Your task to perform on an android device: Add "razer nari" to the cart on amazon, then select checkout. Image 0: 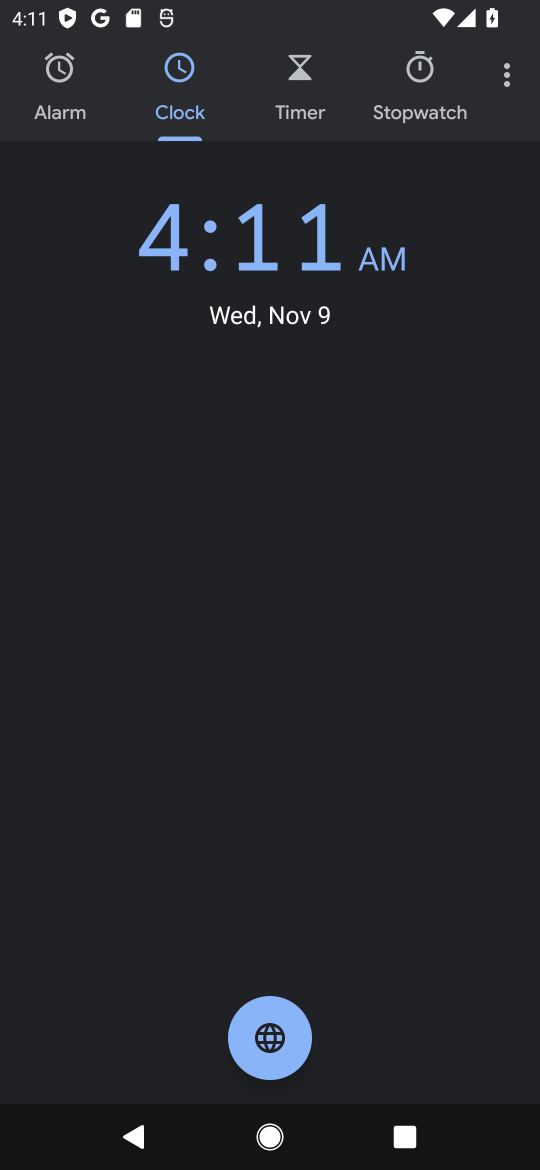
Step 0: press home button
Your task to perform on an android device: Add "razer nari" to the cart on amazon, then select checkout. Image 1: 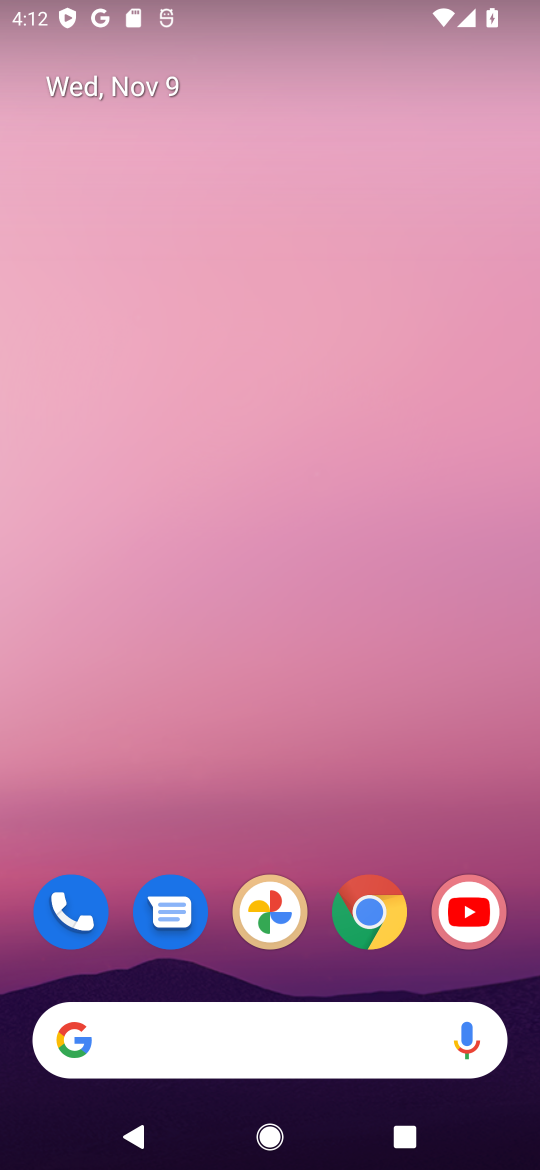
Step 1: click (371, 916)
Your task to perform on an android device: Add "razer nari" to the cart on amazon, then select checkout. Image 2: 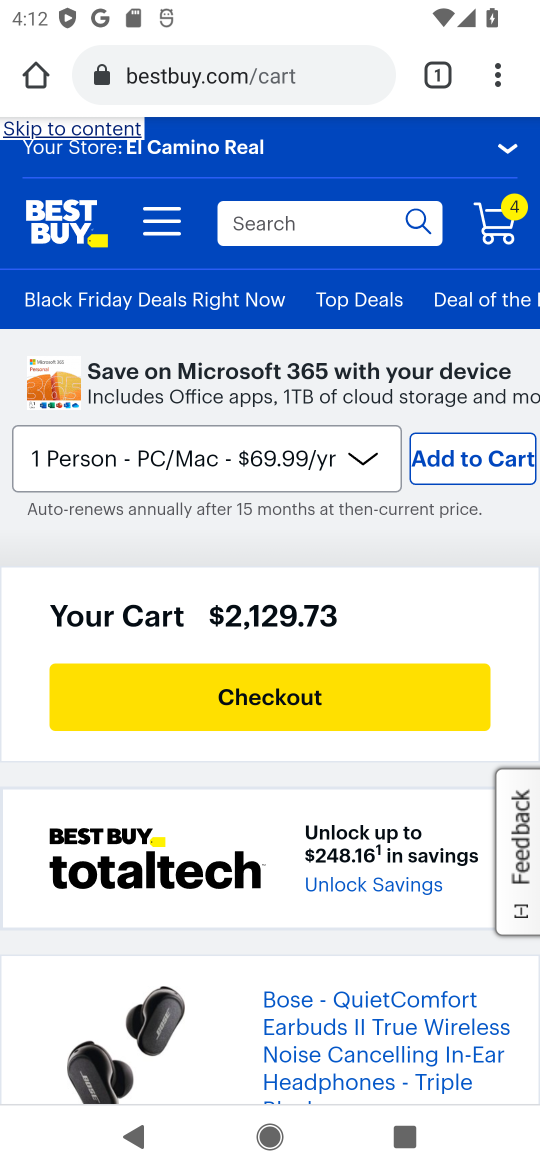
Step 2: click (328, 78)
Your task to perform on an android device: Add "razer nari" to the cart on amazon, then select checkout. Image 3: 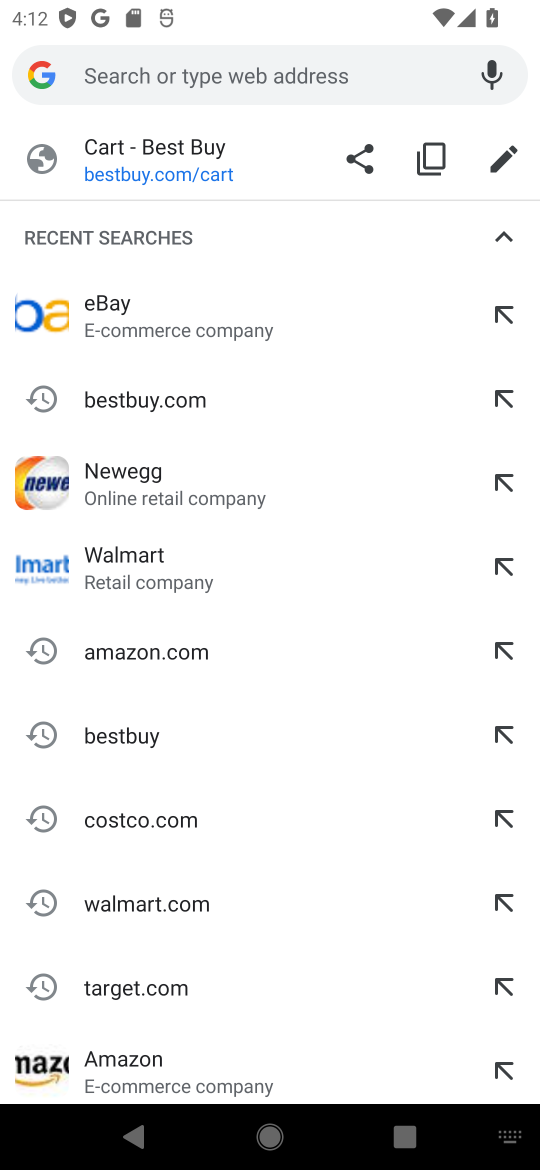
Step 3: type "amazon"
Your task to perform on an android device: Add "razer nari" to the cart on amazon, then select checkout. Image 4: 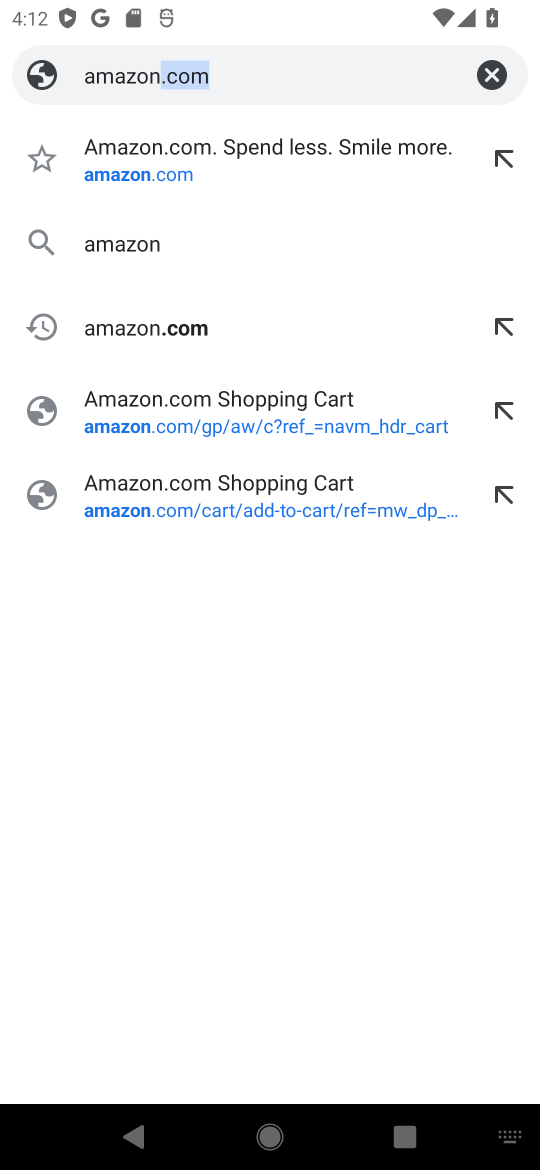
Step 4: click (159, 168)
Your task to perform on an android device: Add "razer nari" to the cart on amazon, then select checkout. Image 5: 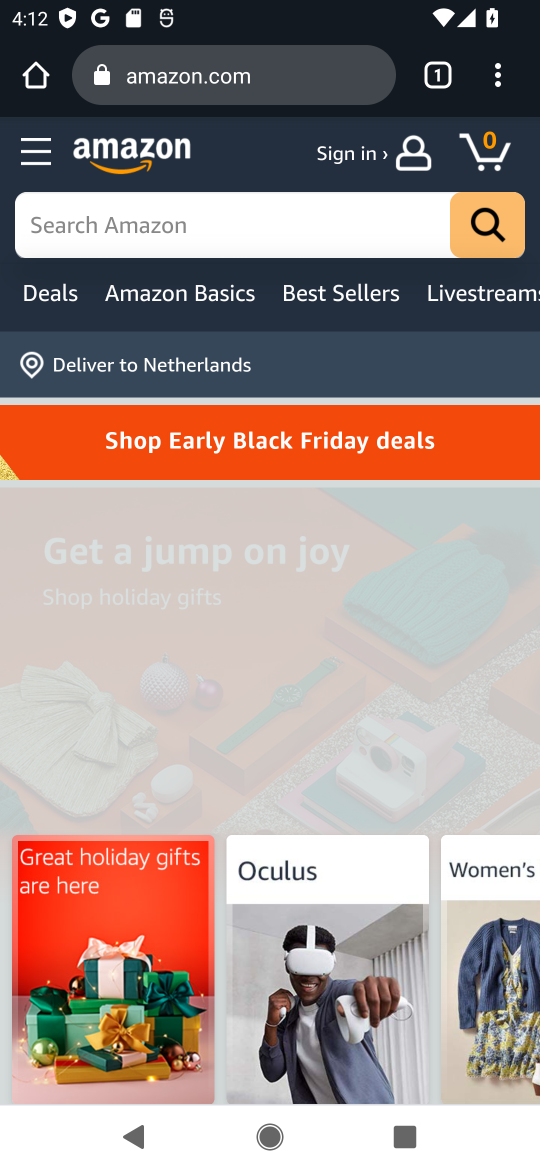
Step 5: click (177, 228)
Your task to perform on an android device: Add "razer nari" to the cart on amazon, then select checkout. Image 6: 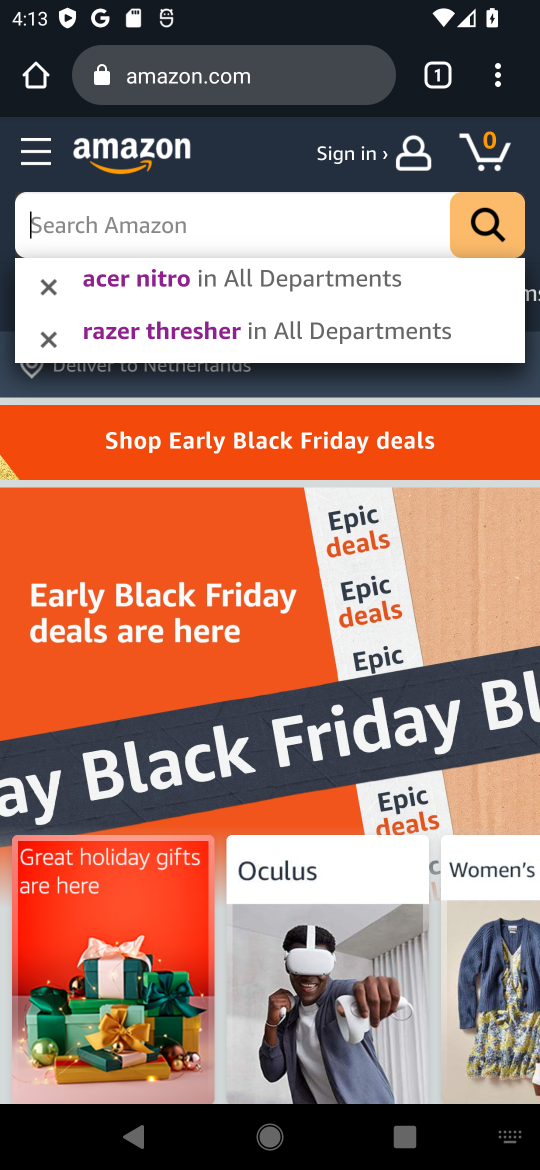
Step 6: type "razer nari"
Your task to perform on an android device: Add "razer nari" to the cart on amazon, then select checkout. Image 7: 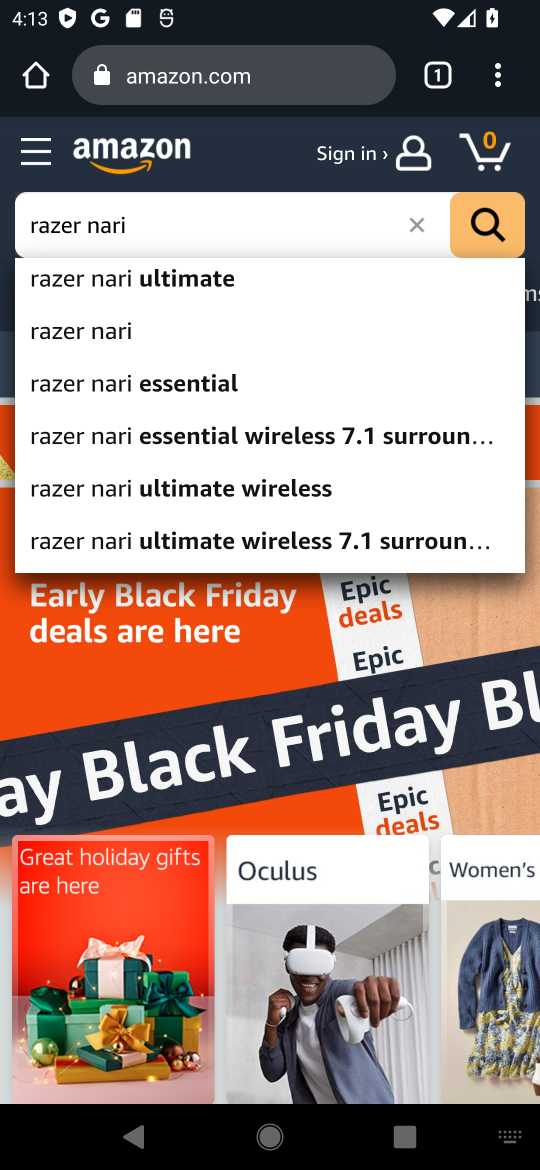
Step 7: click (64, 335)
Your task to perform on an android device: Add "razer nari" to the cart on amazon, then select checkout. Image 8: 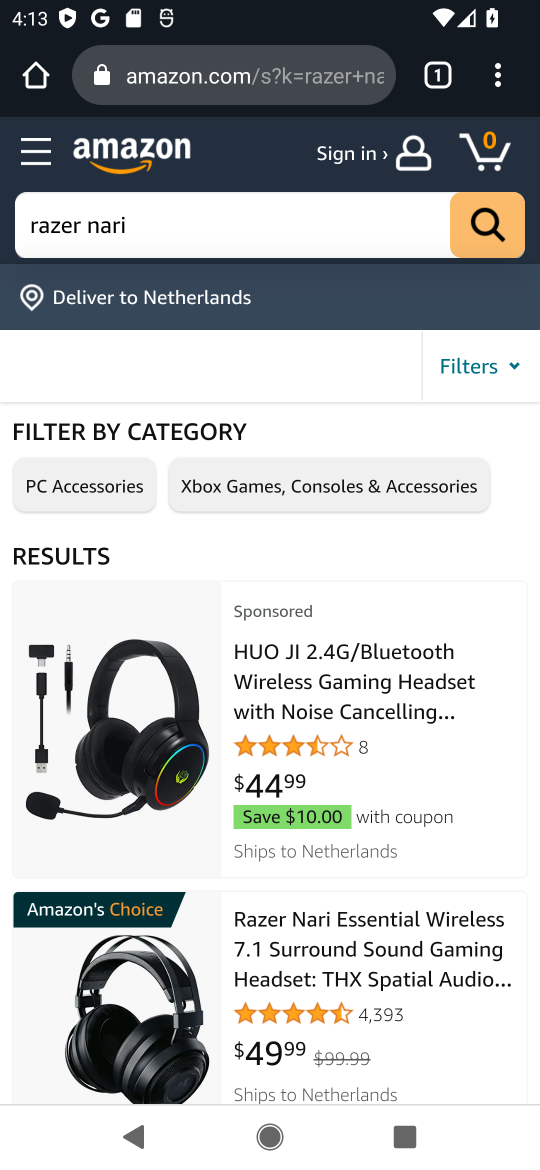
Step 8: drag from (408, 948) to (418, 613)
Your task to perform on an android device: Add "razer nari" to the cart on amazon, then select checkout. Image 9: 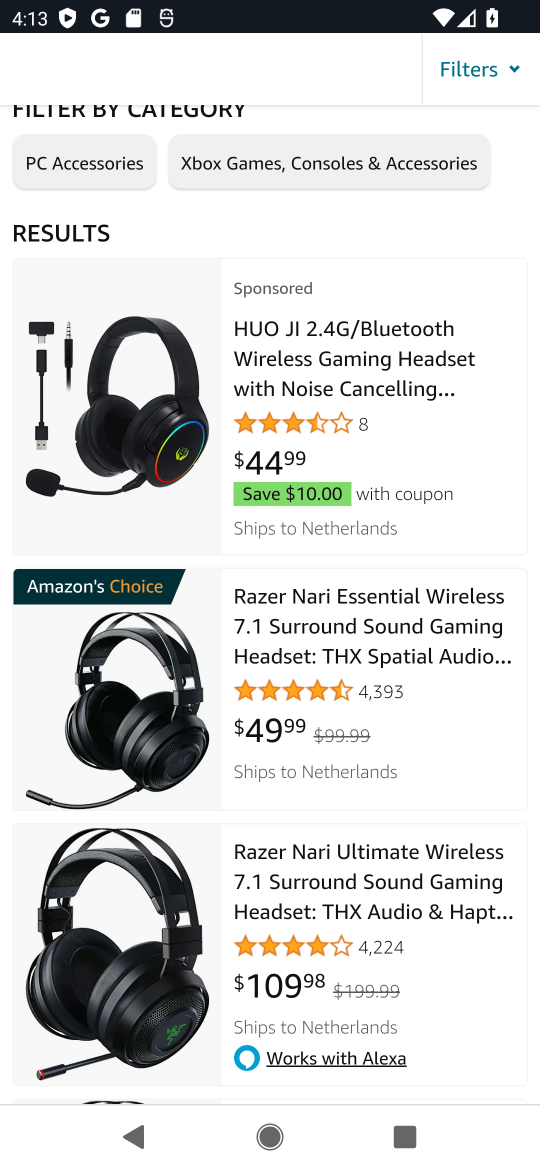
Step 9: click (341, 626)
Your task to perform on an android device: Add "razer nari" to the cart on amazon, then select checkout. Image 10: 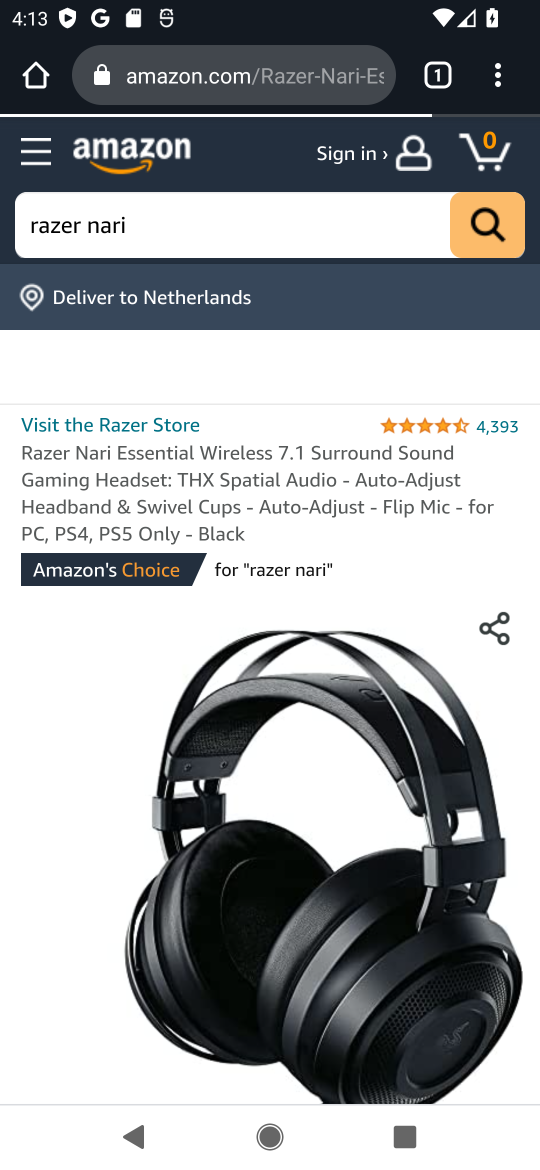
Step 10: drag from (103, 829) to (95, 434)
Your task to perform on an android device: Add "razer nari" to the cart on amazon, then select checkout. Image 11: 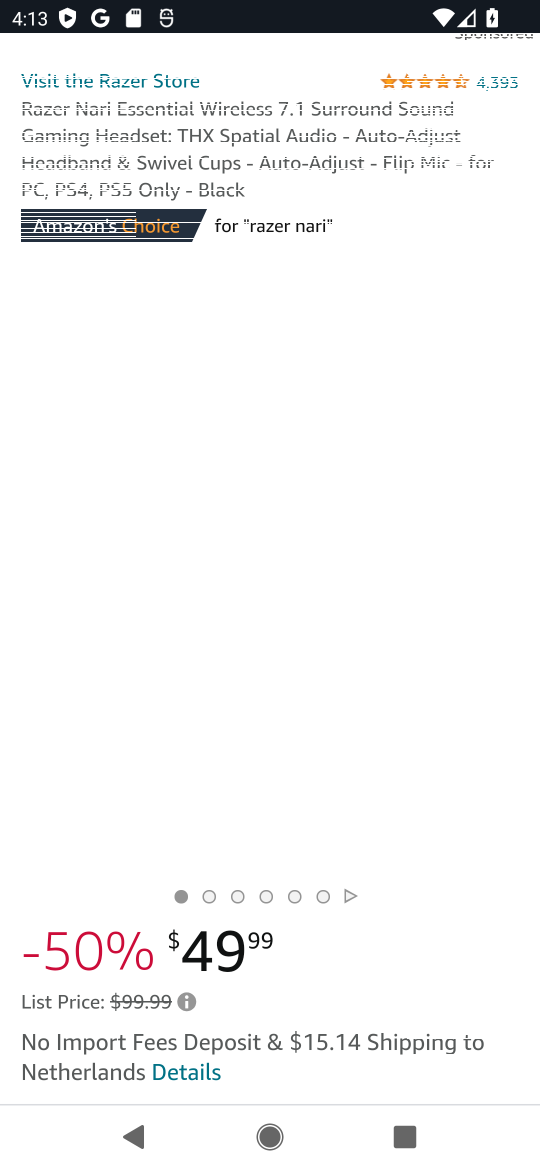
Step 11: drag from (120, 681) to (107, 323)
Your task to perform on an android device: Add "razer nari" to the cart on amazon, then select checkout. Image 12: 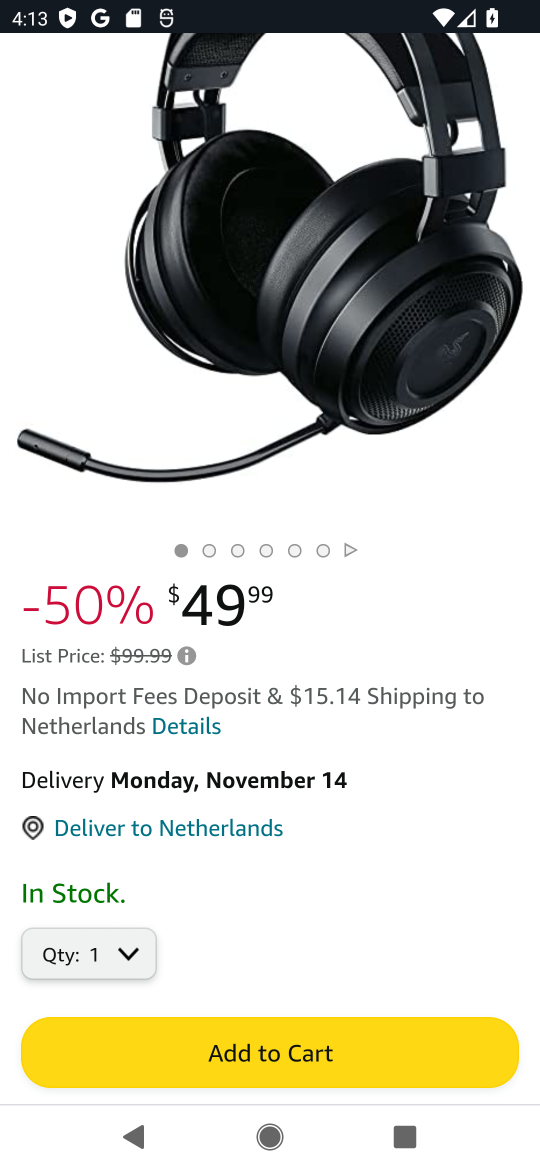
Step 12: click (228, 1053)
Your task to perform on an android device: Add "razer nari" to the cart on amazon, then select checkout. Image 13: 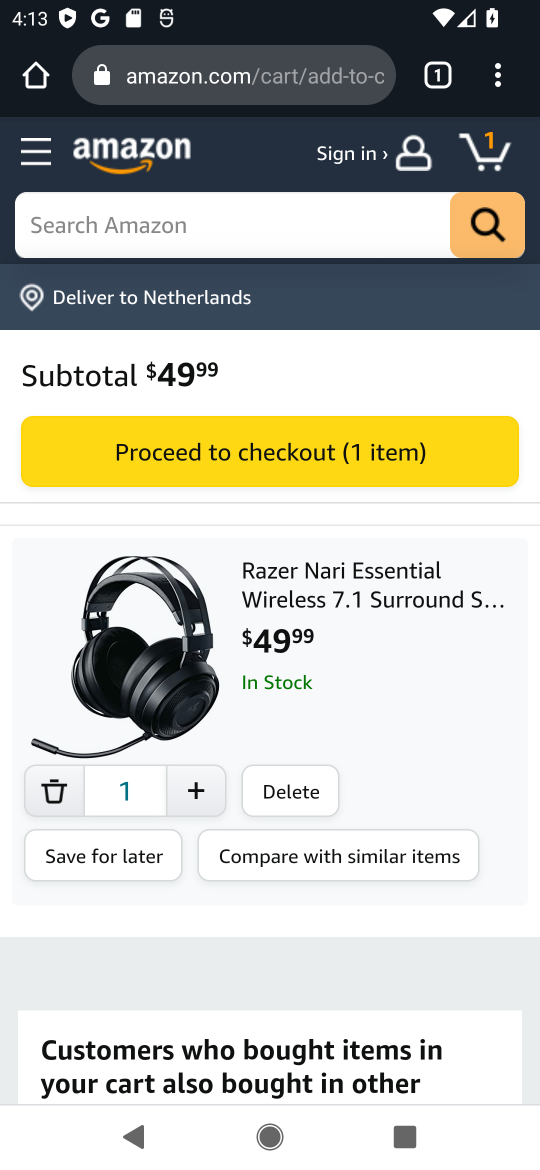
Step 13: click (224, 459)
Your task to perform on an android device: Add "razer nari" to the cart on amazon, then select checkout. Image 14: 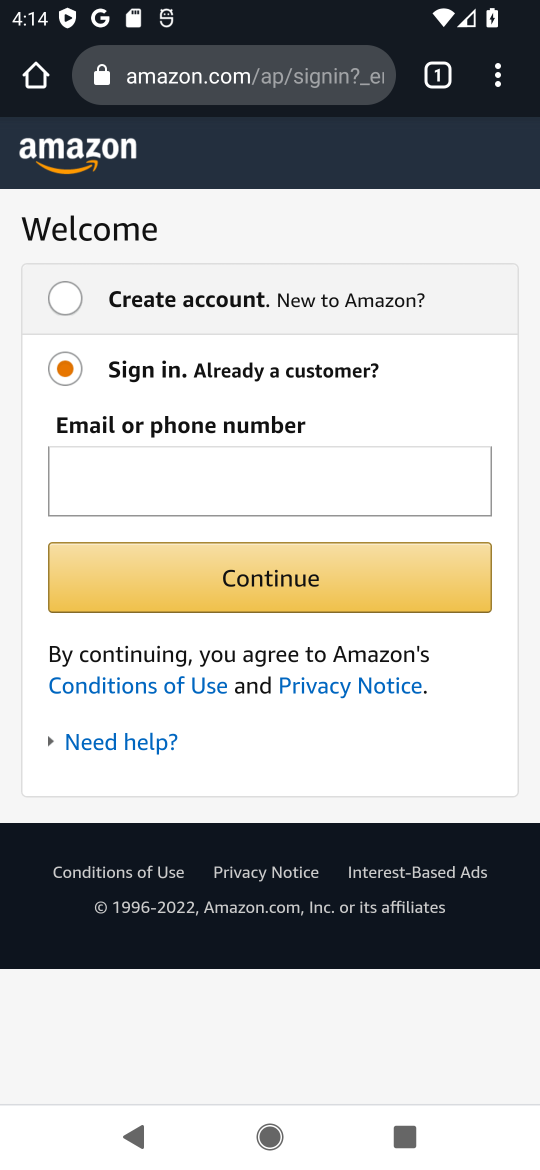
Step 14: task complete